Your task to perform on an android device: toggle data saver in the chrome app Image 0: 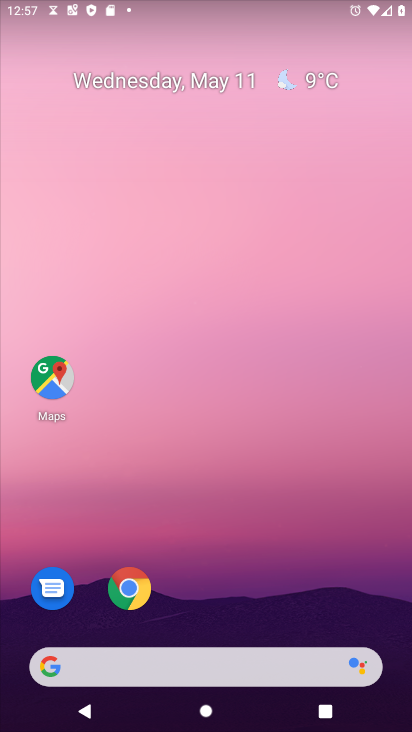
Step 0: click (134, 593)
Your task to perform on an android device: toggle data saver in the chrome app Image 1: 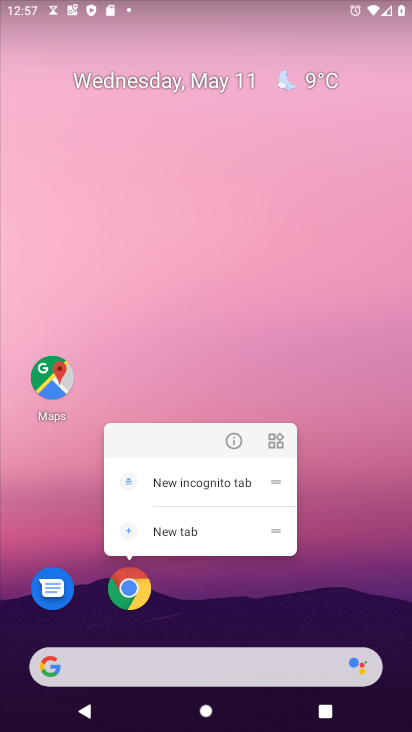
Step 1: click (134, 594)
Your task to perform on an android device: toggle data saver in the chrome app Image 2: 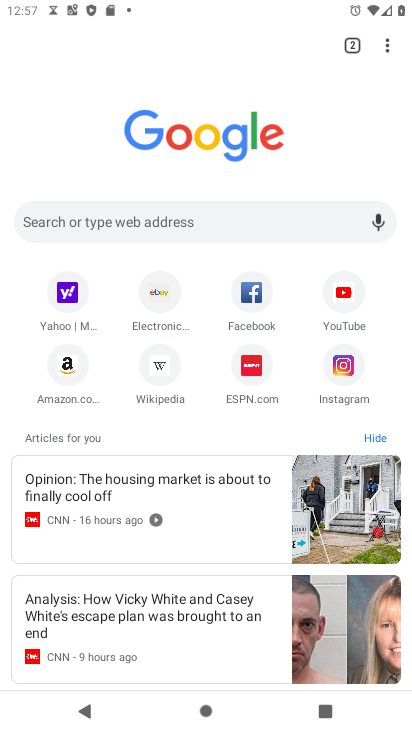
Step 2: drag from (390, 47) to (221, 385)
Your task to perform on an android device: toggle data saver in the chrome app Image 3: 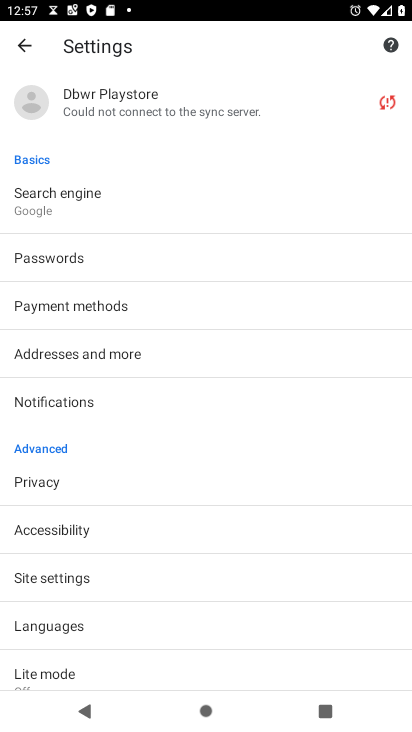
Step 3: click (84, 668)
Your task to perform on an android device: toggle data saver in the chrome app Image 4: 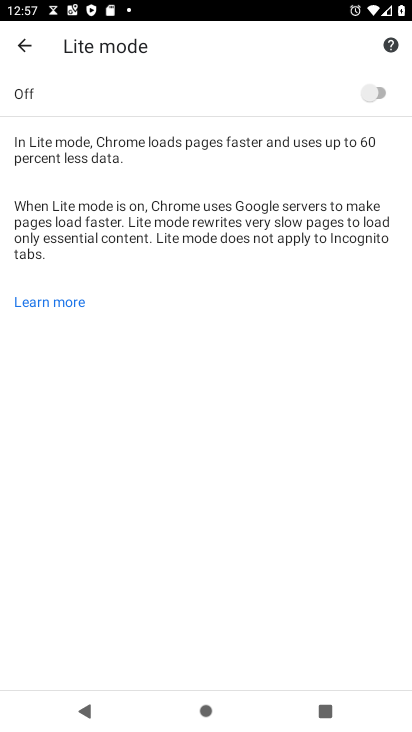
Step 4: click (372, 94)
Your task to perform on an android device: toggle data saver in the chrome app Image 5: 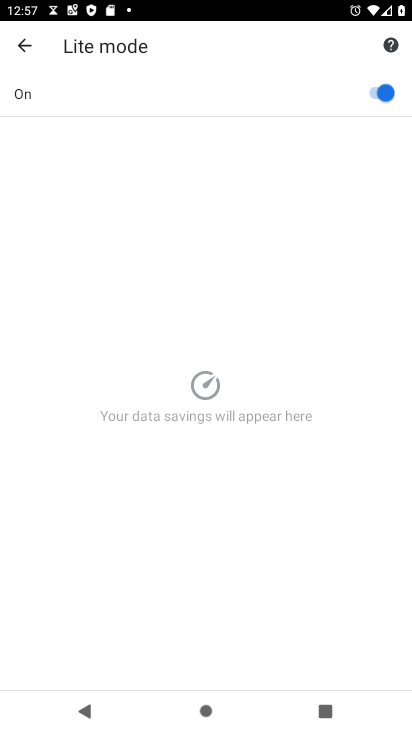
Step 5: task complete